Your task to perform on an android device: Open calendar and show me the third week of next month Image 0: 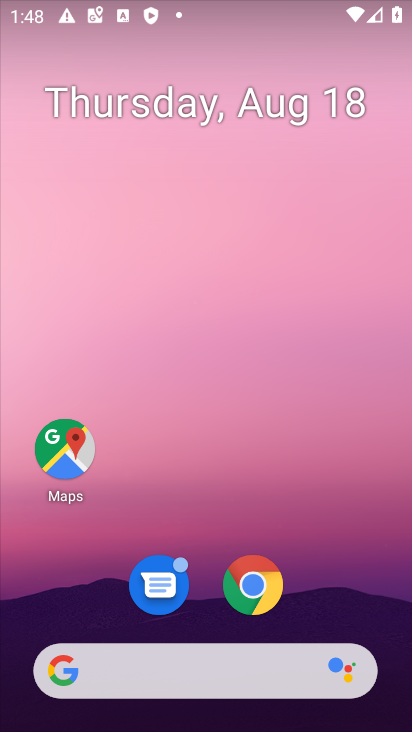
Step 0: drag from (233, 508) to (265, 1)
Your task to perform on an android device: Open calendar and show me the third week of next month Image 1: 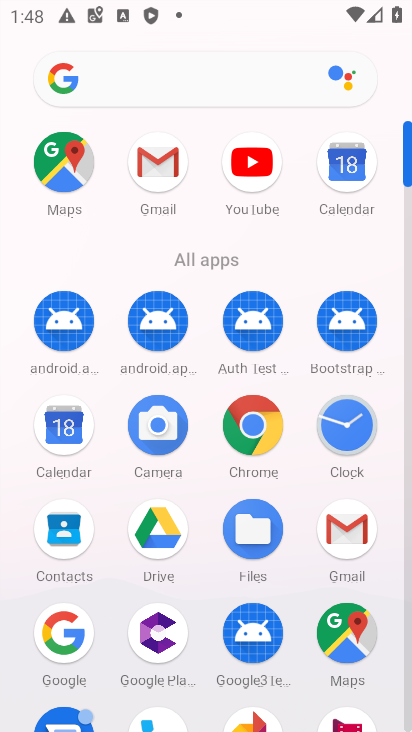
Step 1: click (350, 167)
Your task to perform on an android device: Open calendar and show me the third week of next month Image 2: 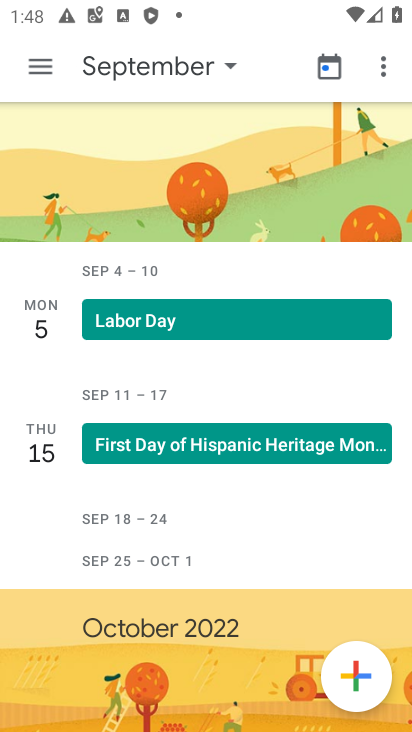
Step 2: click (42, 63)
Your task to perform on an android device: Open calendar and show me the third week of next month Image 3: 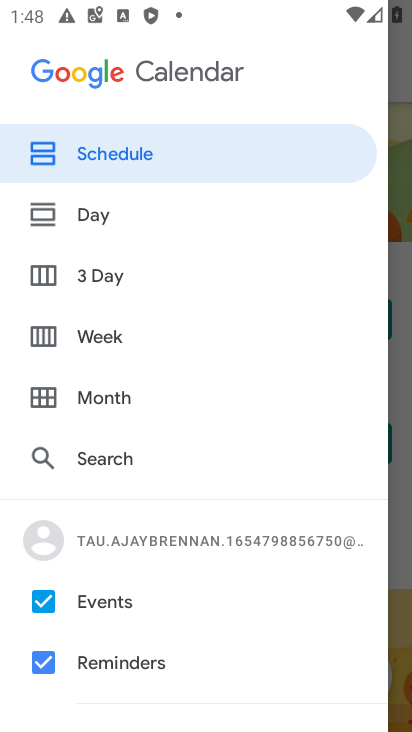
Step 3: click (44, 394)
Your task to perform on an android device: Open calendar and show me the third week of next month Image 4: 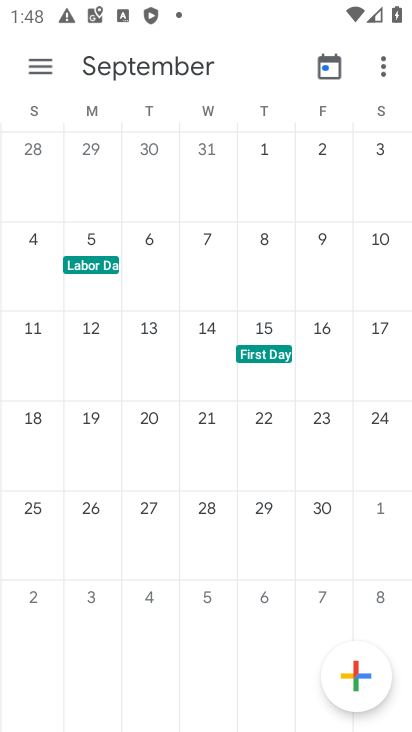
Step 4: drag from (379, 370) to (330, 370)
Your task to perform on an android device: Open calendar and show me the third week of next month Image 5: 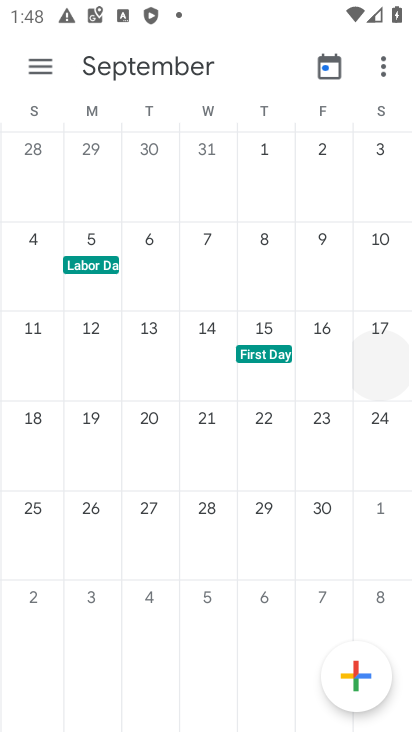
Step 5: drag from (278, 361) to (3, 386)
Your task to perform on an android device: Open calendar and show me the third week of next month Image 6: 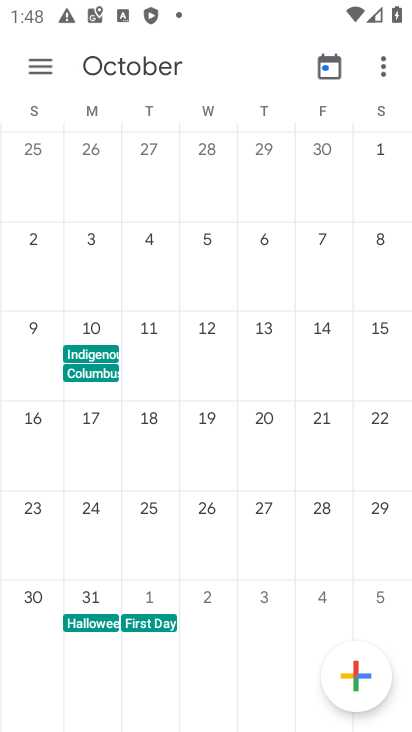
Step 6: click (33, 414)
Your task to perform on an android device: Open calendar and show me the third week of next month Image 7: 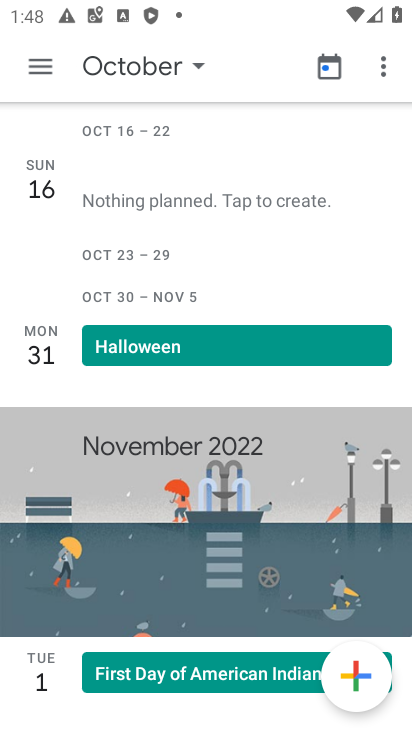
Step 7: press back button
Your task to perform on an android device: Open calendar and show me the third week of next month Image 8: 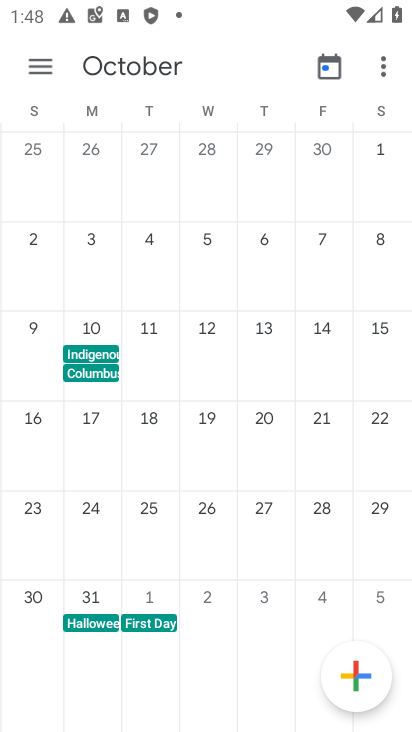
Step 8: drag from (117, 287) to (409, 353)
Your task to perform on an android device: Open calendar and show me the third week of next month Image 9: 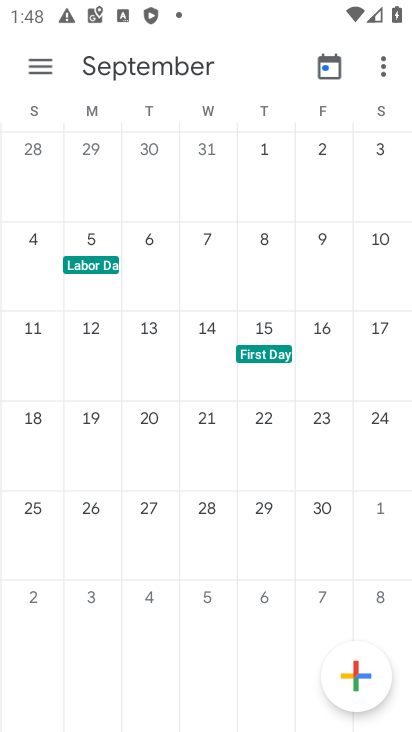
Step 9: click (31, 412)
Your task to perform on an android device: Open calendar and show me the third week of next month Image 10: 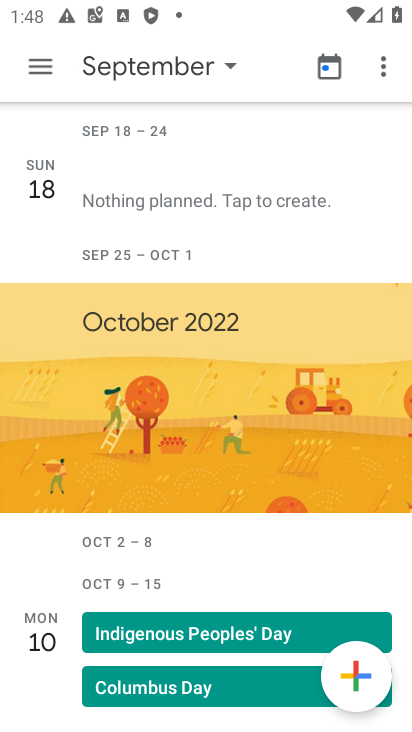
Step 10: click (46, 70)
Your task to perform on an android device: Open calendar and show me the third week of next month Image 11: 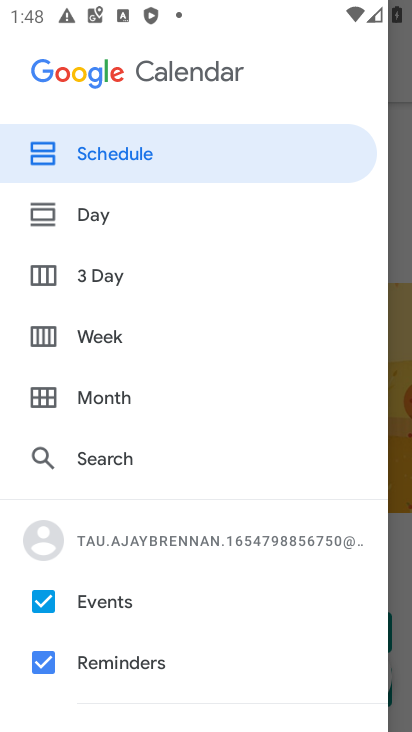
Step 11: click (51, 334)
Your task to perform on an android device: Open calendar and show me the third week of next month Image 12: 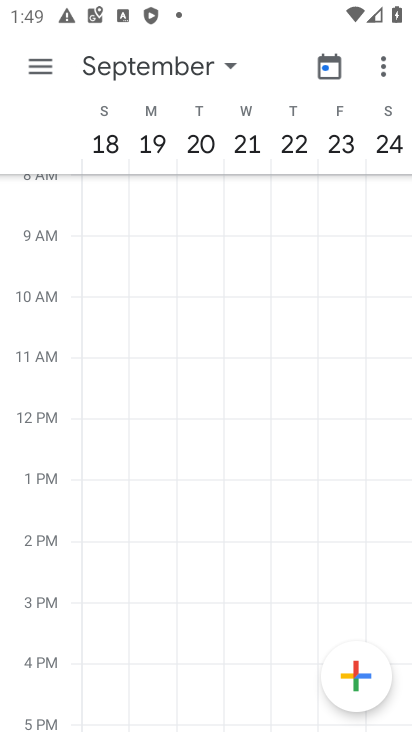
Step 12: task complete